Your task to perform on an android device: Go to Amazon Image 0: 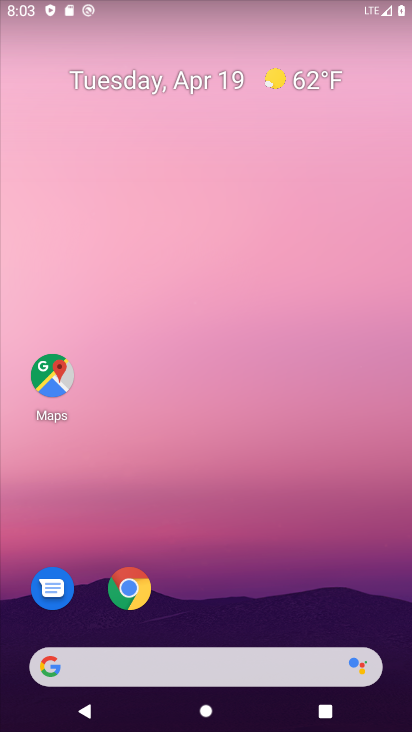
Step 0: click (131, 590)
Your task to perform on an android device: Go to Amazon Image 1: 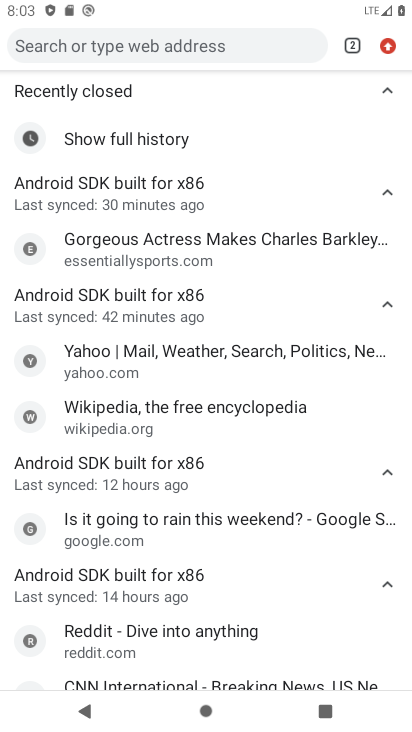
Step 1: click (388, 46)
Your task to perform on an android device: Go to Amazon Image 2: 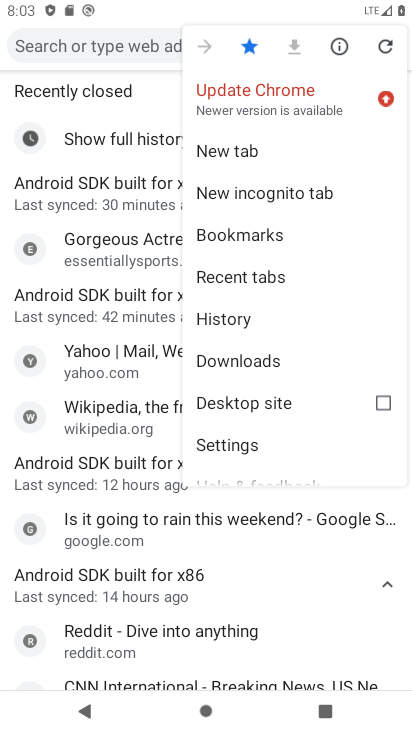
Step 2: click (243, 149)
Your task to perform on an android device: Go to Amazon Image 3: 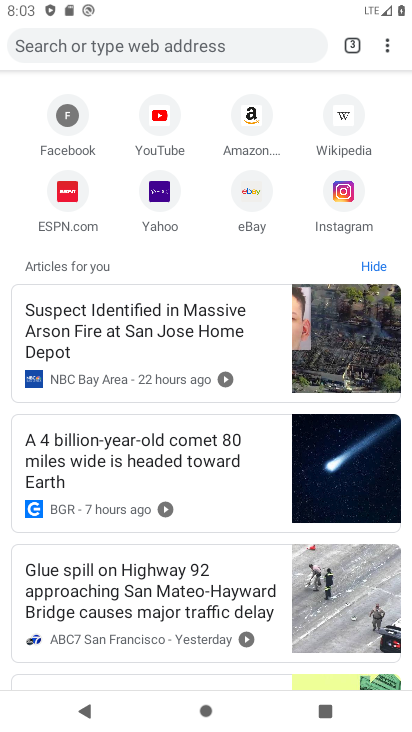
Step 3: click (258, 121)
Your task to perform on an android device: Go to Amazon Image 4: 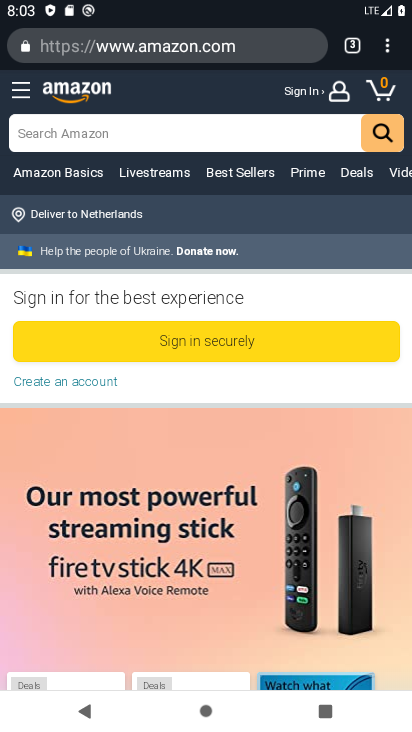
Step 4: task complete